Your task to perform on an android device: turn vacation reply on in the gmail app Image 0: 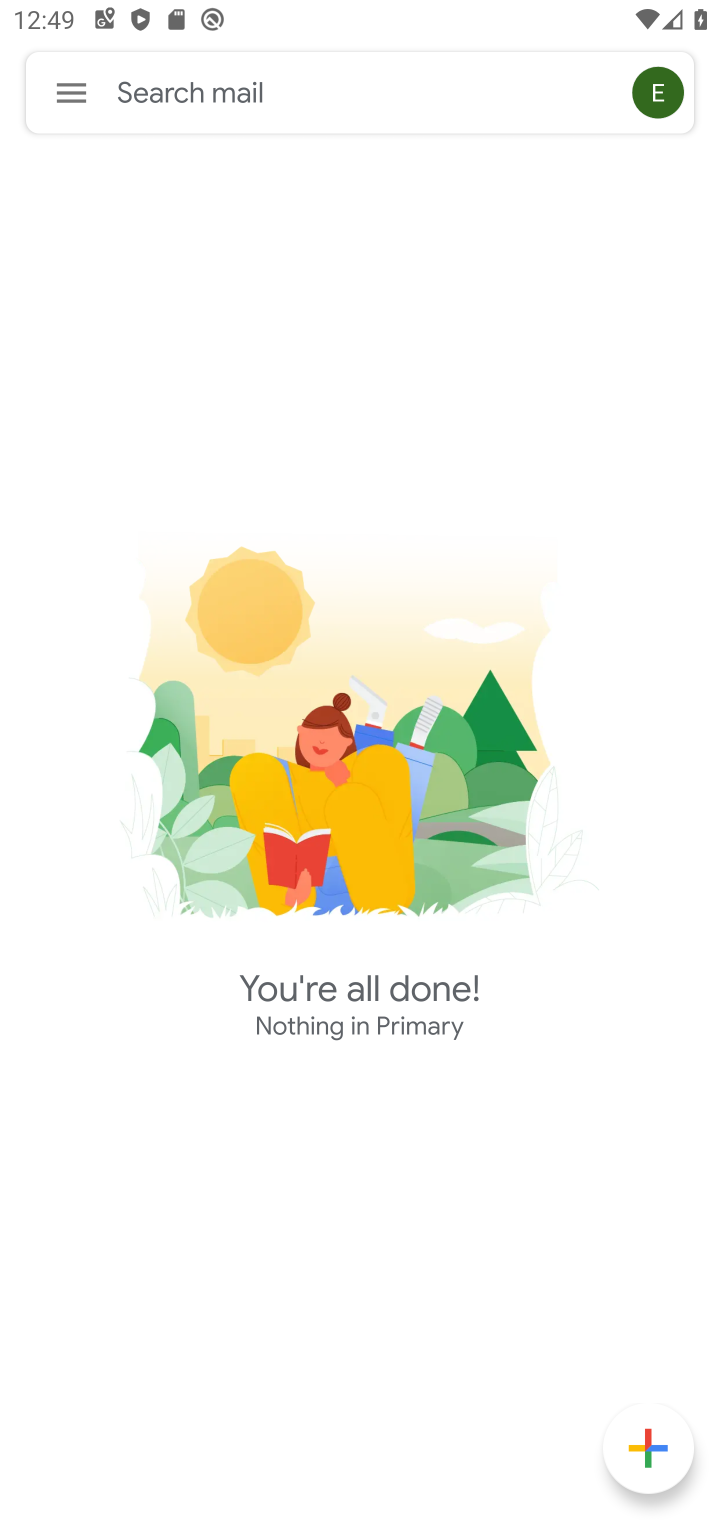
Step 0: press back button
Your task to perform on an android device: turn vacation reply on in the gmail app Image 1: 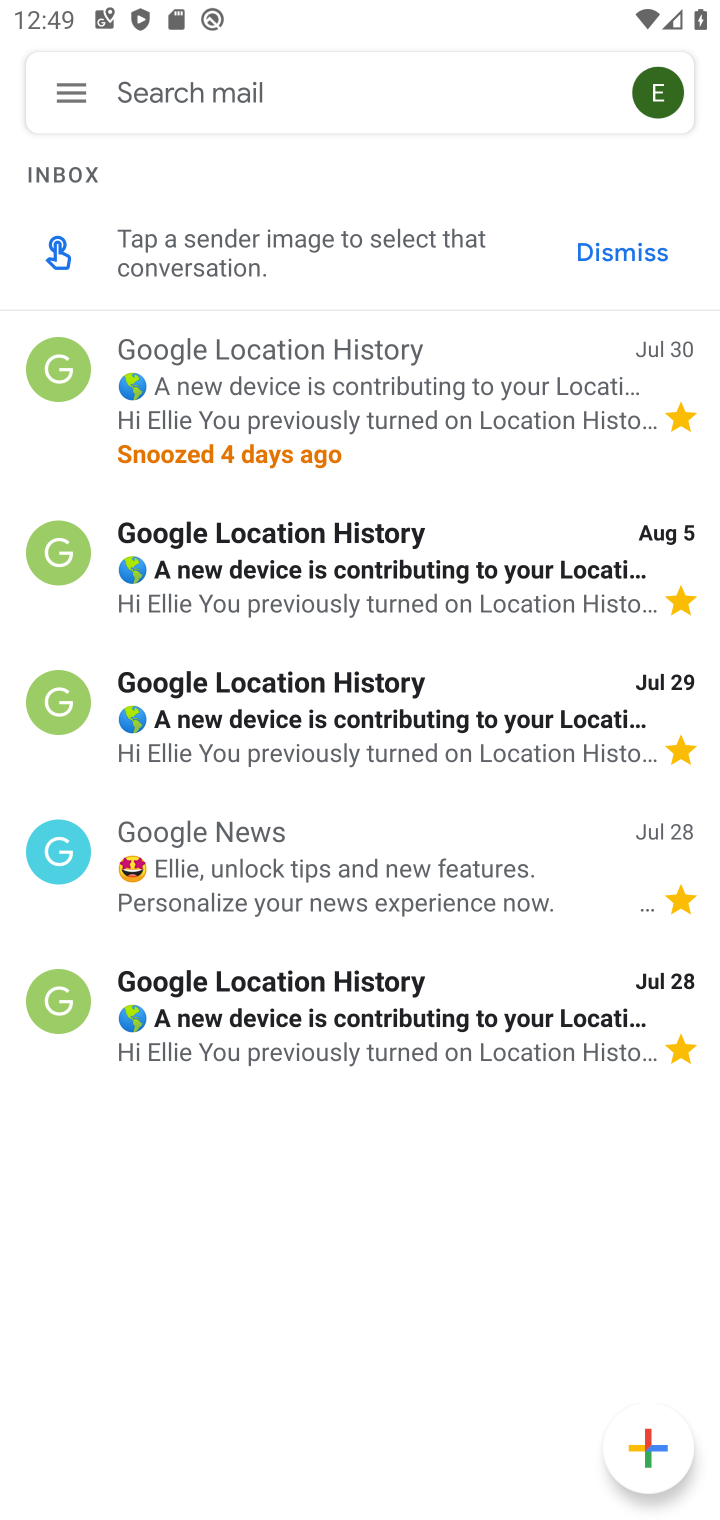
Step 1: press back button
Your task to perform on an android device: turn vacation reply on in the gmail app Image 2: 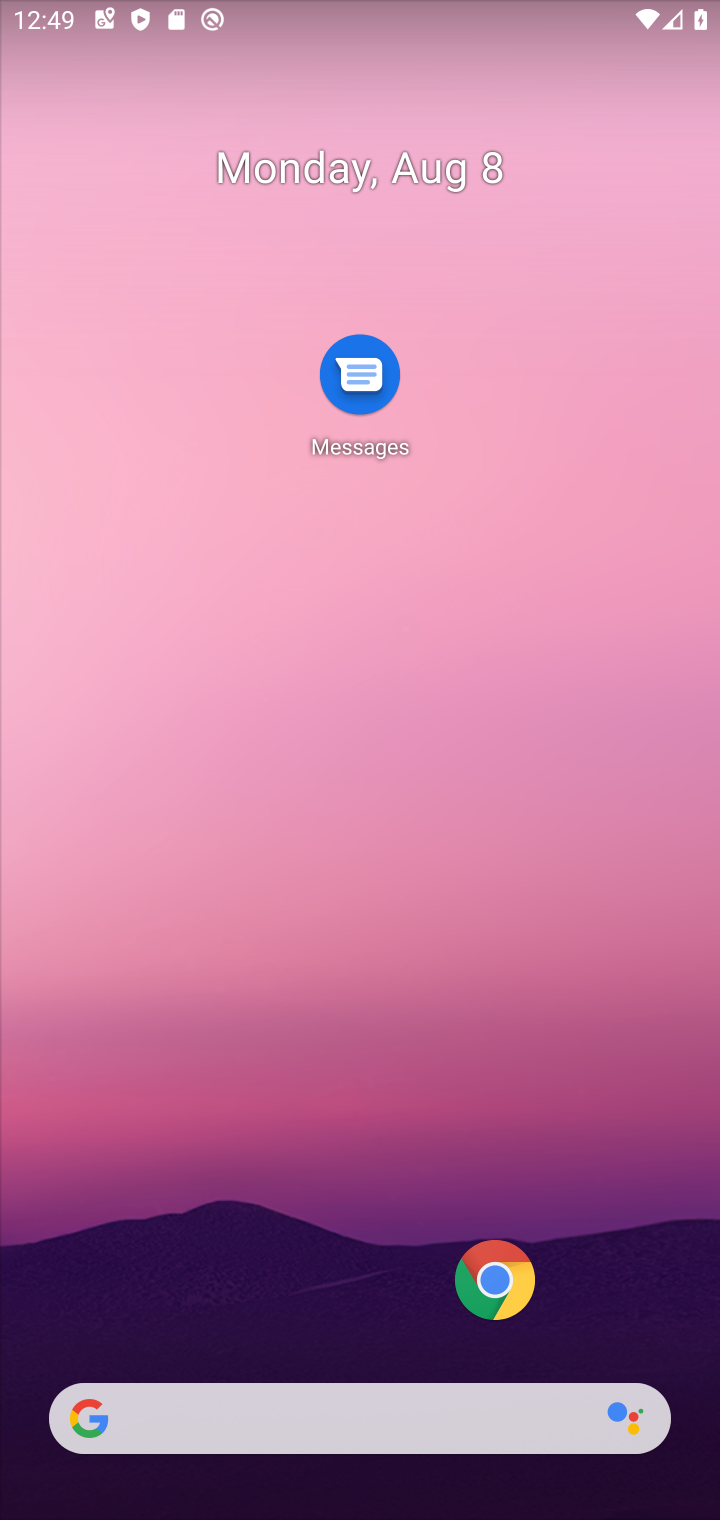
Step 2: drag from (222, 1366) to (445, 16)
Your task to perform on an android device: turn vacation reply on in the gmail app Image 3: 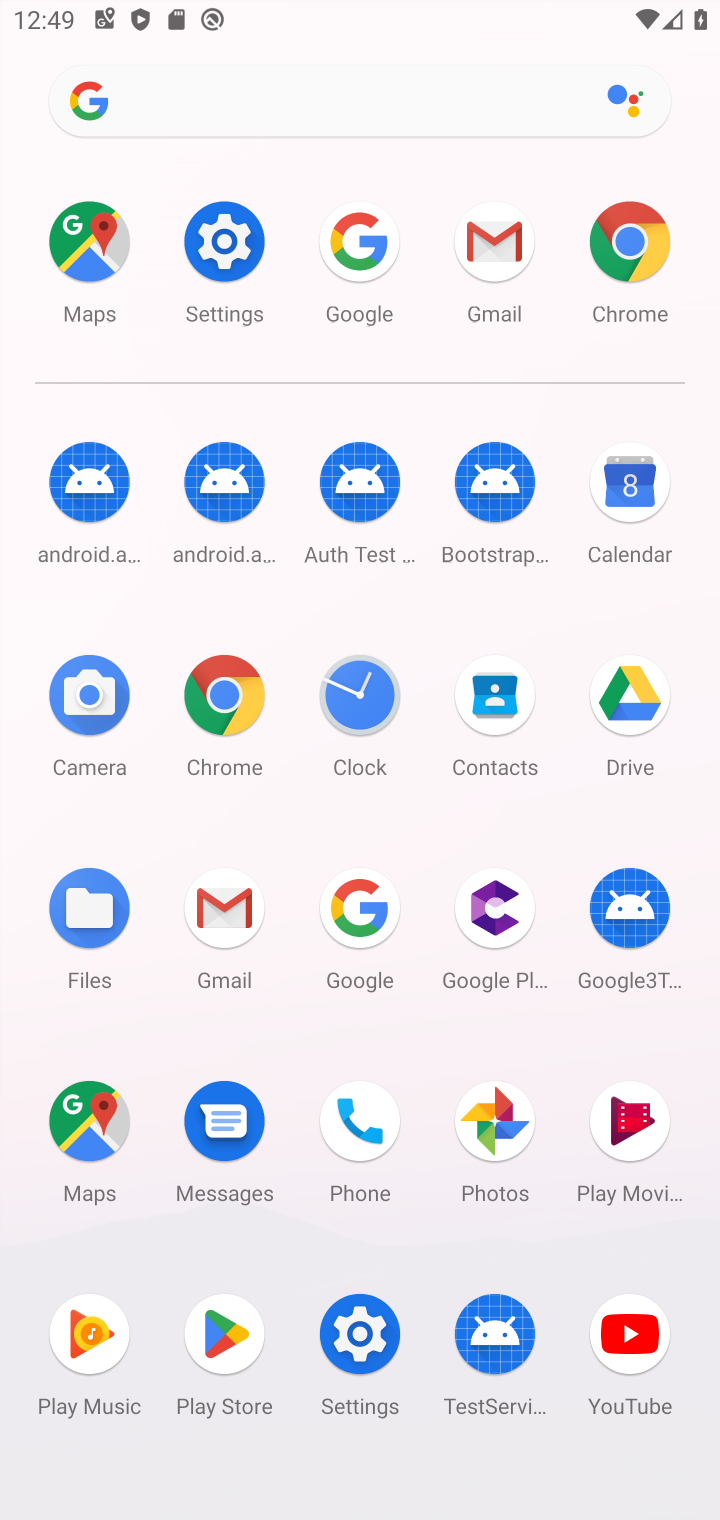
Step 3: click (507, 231)
Your task to perform on an android device: turn vacation reply on in the gmail app Image 4: 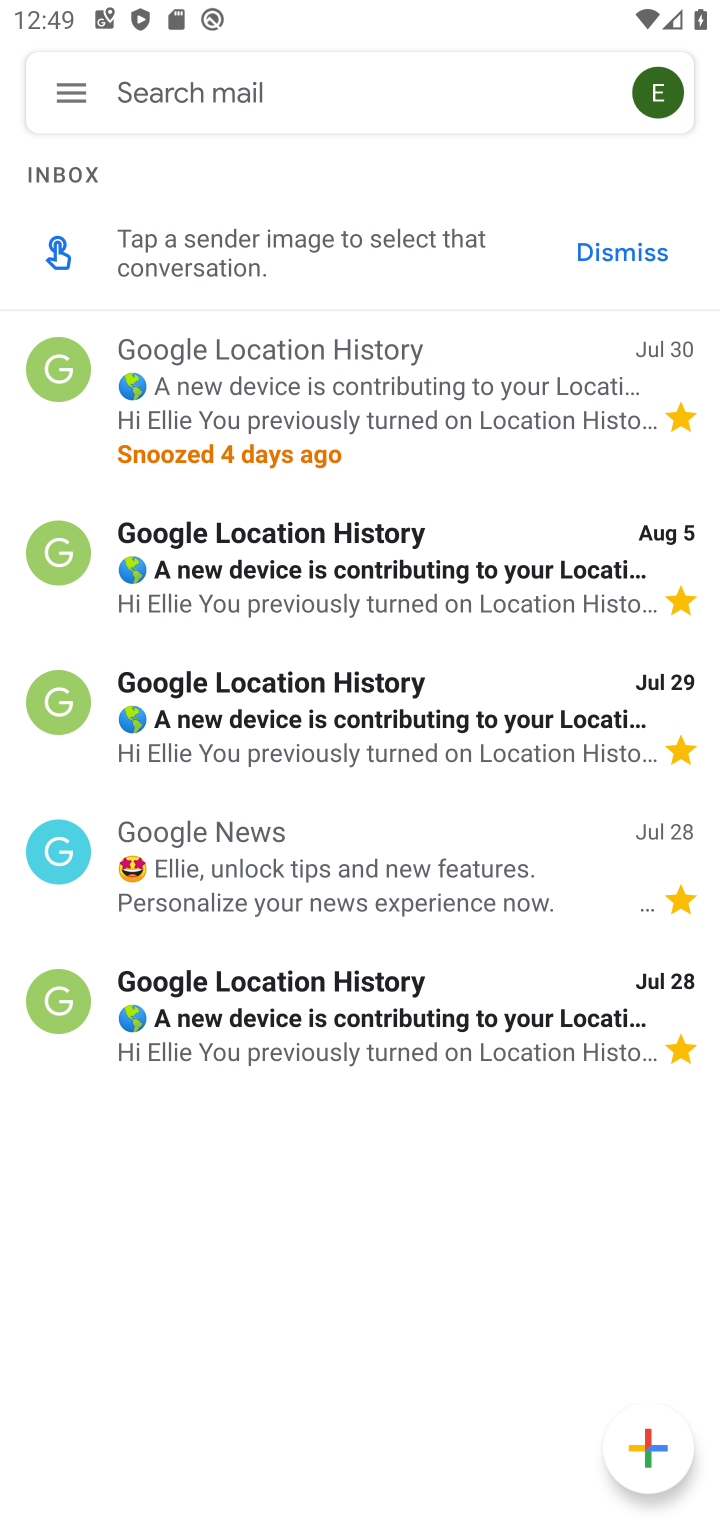
Step 4: click (75, 79)
Your task to perform on an android device: turn vacation reply on in the gmail app Image 5: 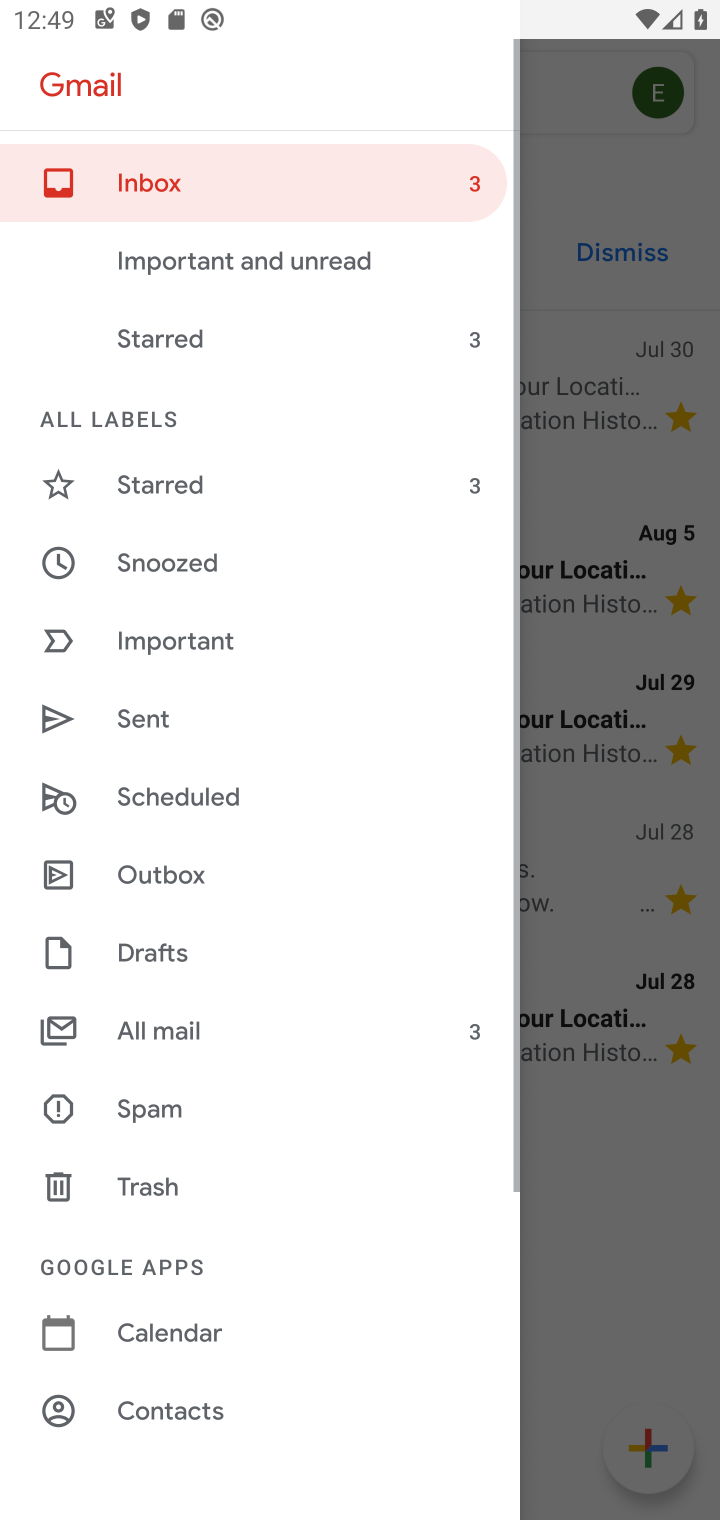
Step 5: drag from (192, 1380) to (394, 54)
Your task to perform on an android device: turn vacation reply on in the gmail app Image 6: 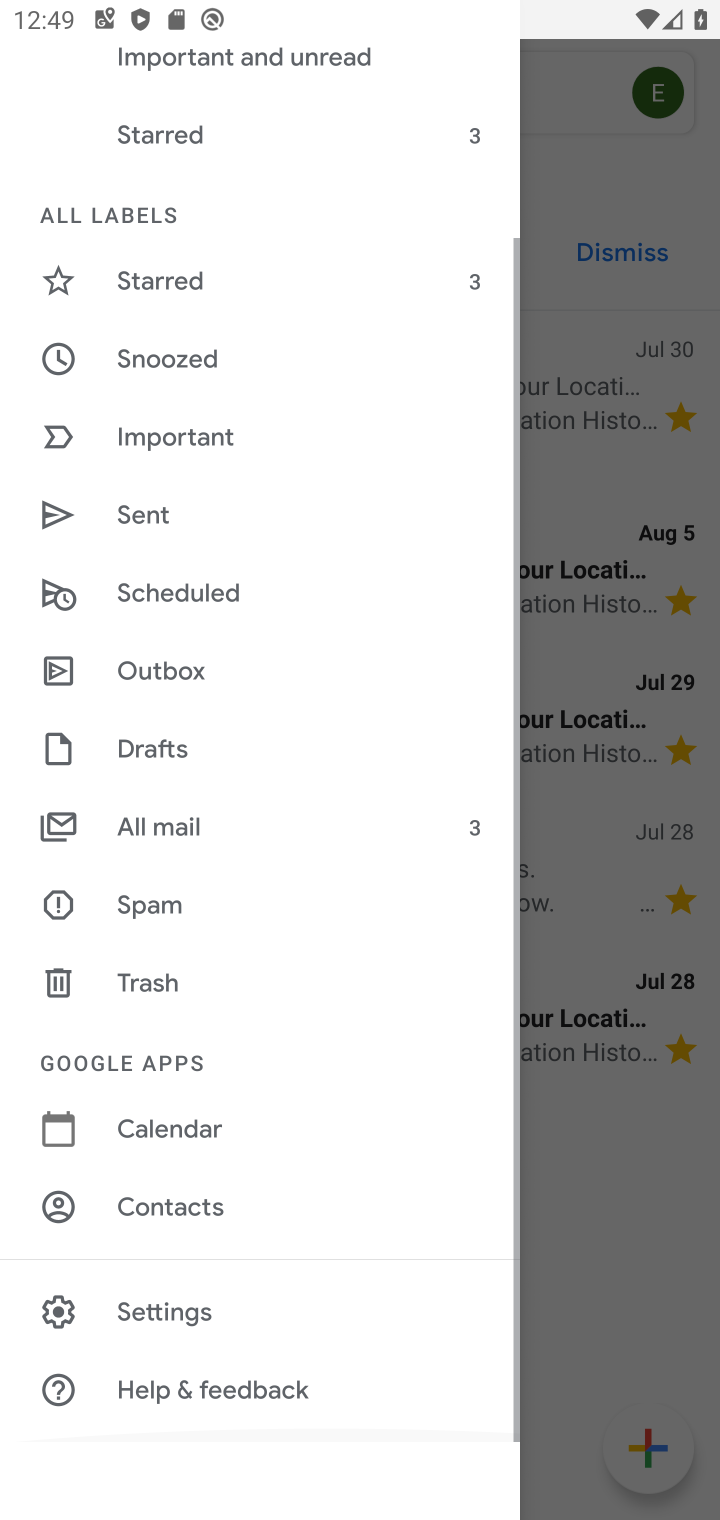
Step 6: click (171, 1307)
Your task to perform on an android device: turn vacation reply on in the gmail app Image 7: 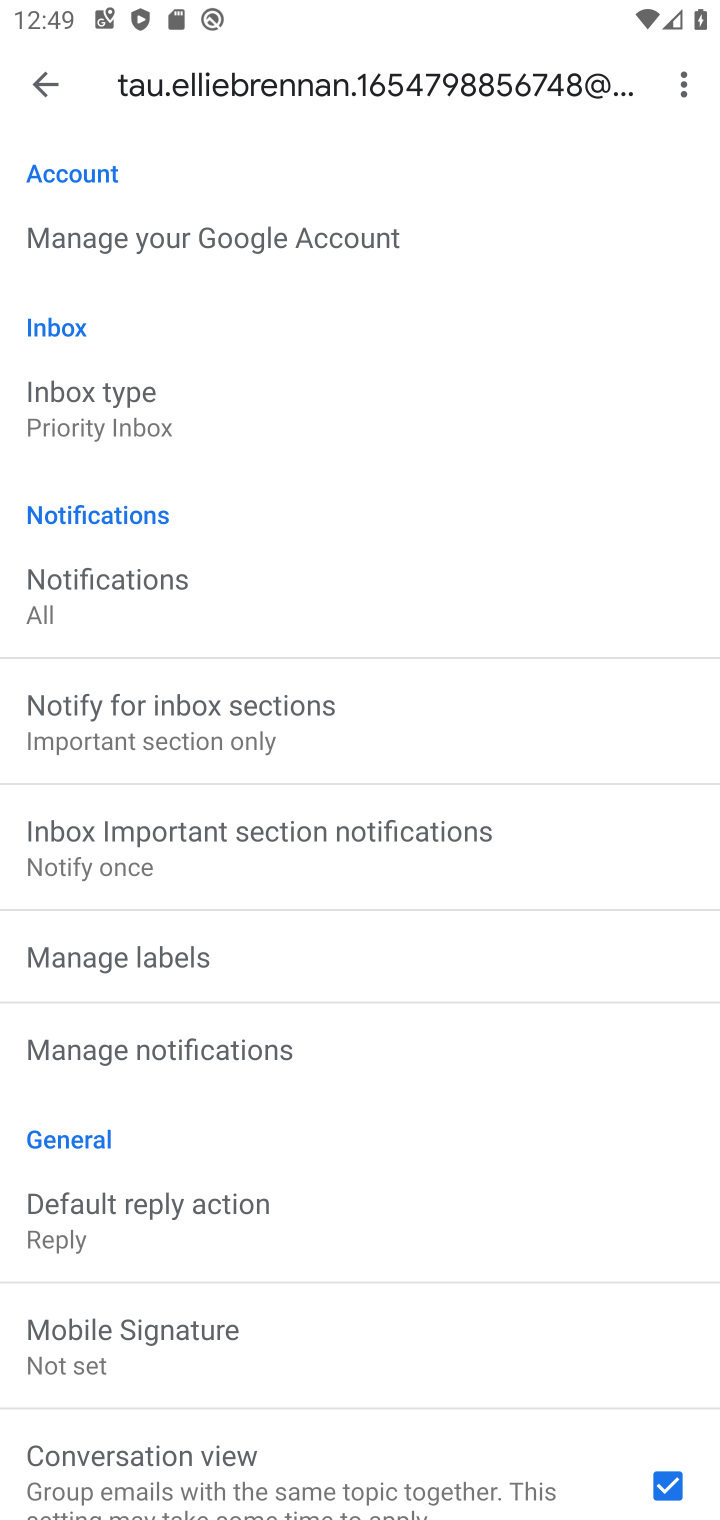
Step 7: drag from (314, 1318) to (521, 110)
Your task to perform on an android device: turn vacation reply on in the gmail app Image 8: 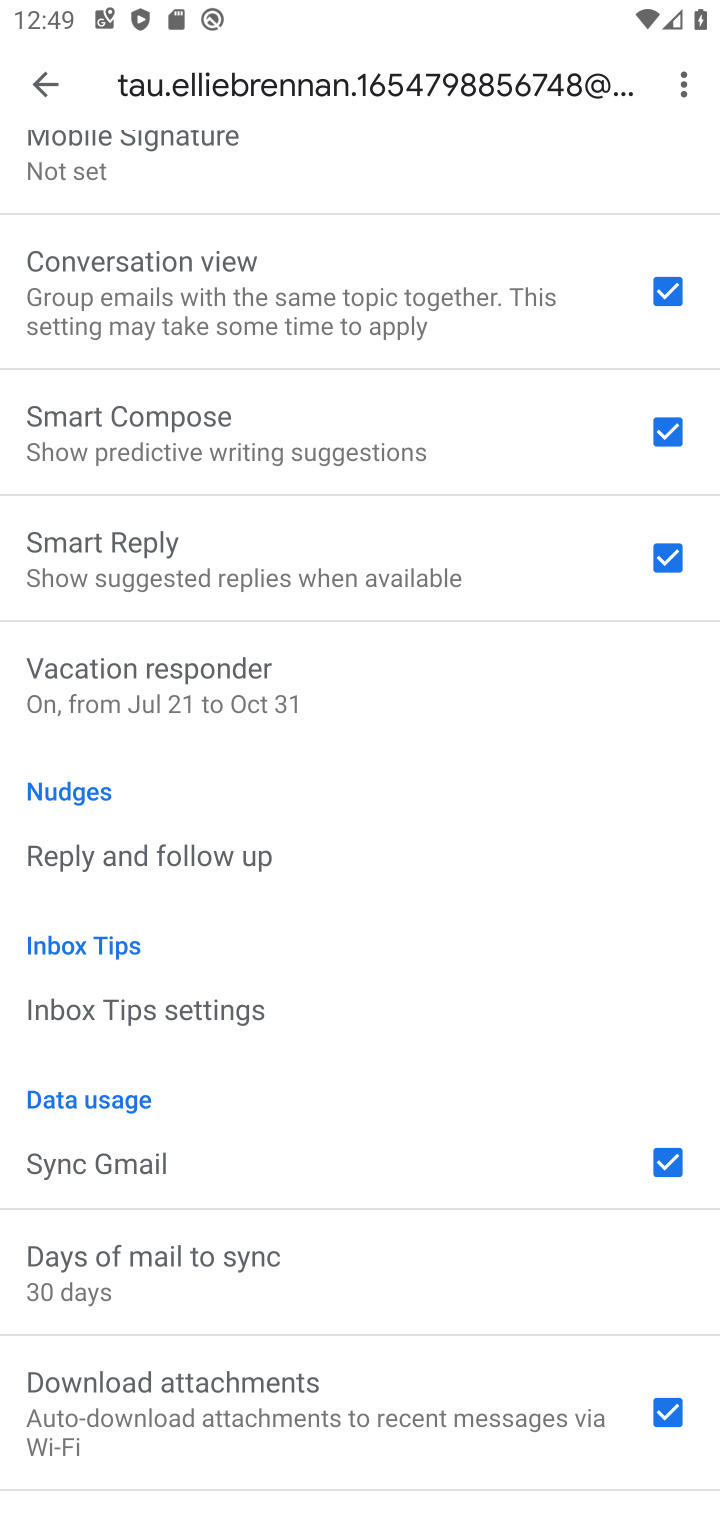
Step 8: click (201, 674)
Your task to perform on an android device: turn vacation reply on in the gmail app Image 9: 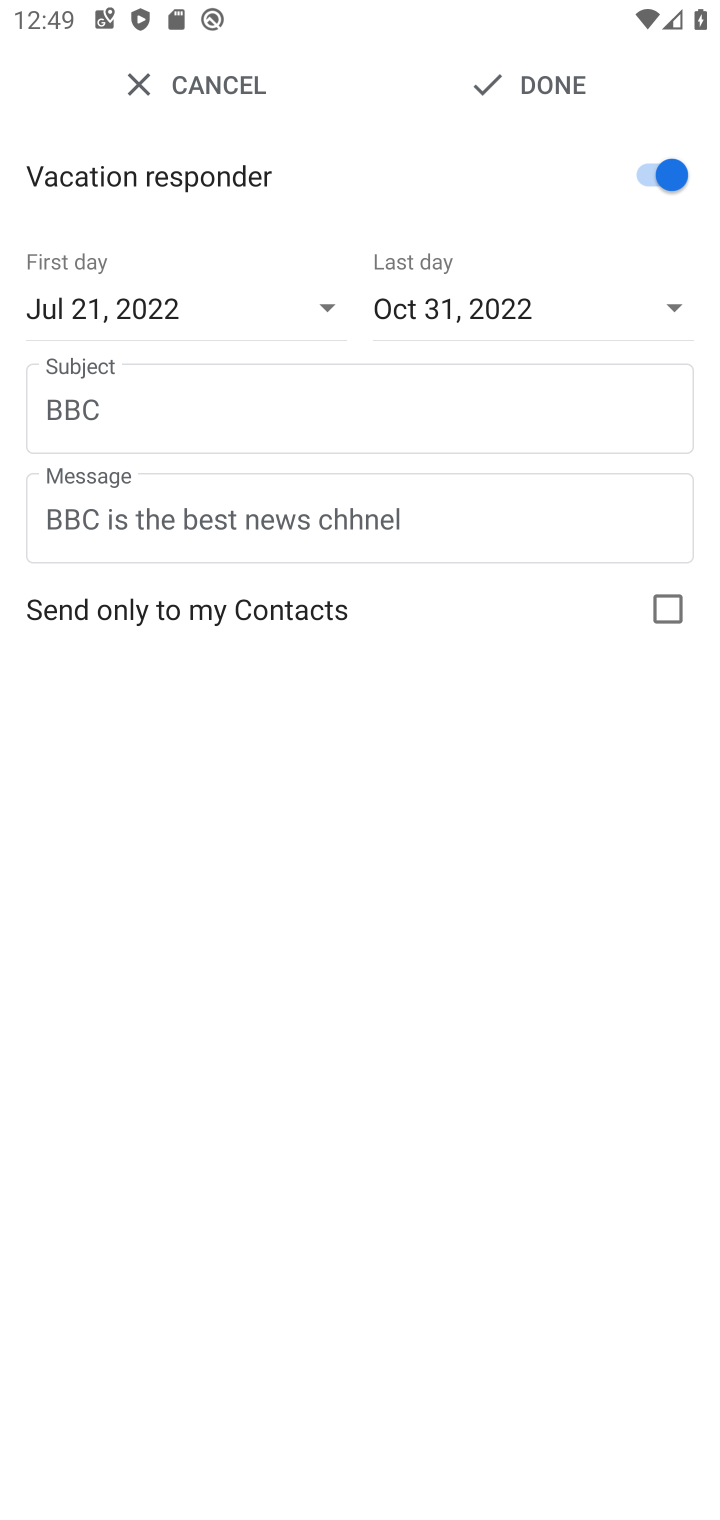
Step 9: task complete